Your task to perform on an android device: Open the phone app and click the voicemail tab. Image 0: 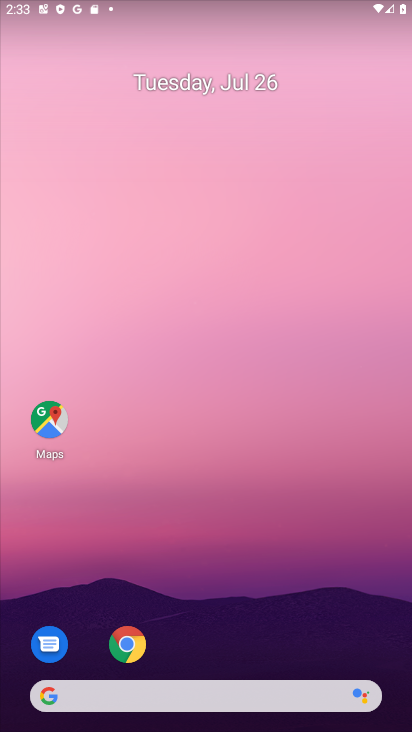
Step 0: drag from (200, 659) to (177, 99)
Your task to perform on an android device: Open the phone app and click the voicemail tab. Image 1: 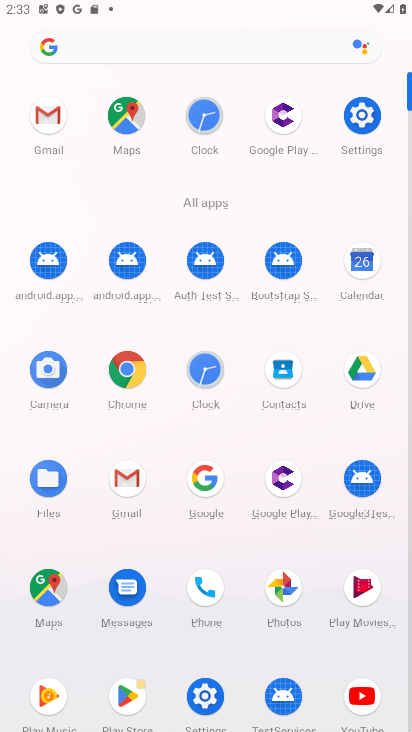
Step 1: click (196, 599)
Your task to perform on an android device: Open the phone app and click the voicemail tab. Image 2: 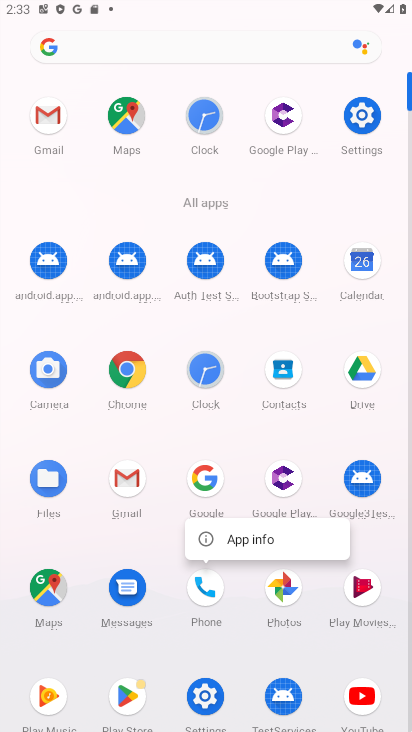
Step 2: click (210, 599)
Your task to perform on an android device: Open the phone app and click the voicemail tab. Image 3: 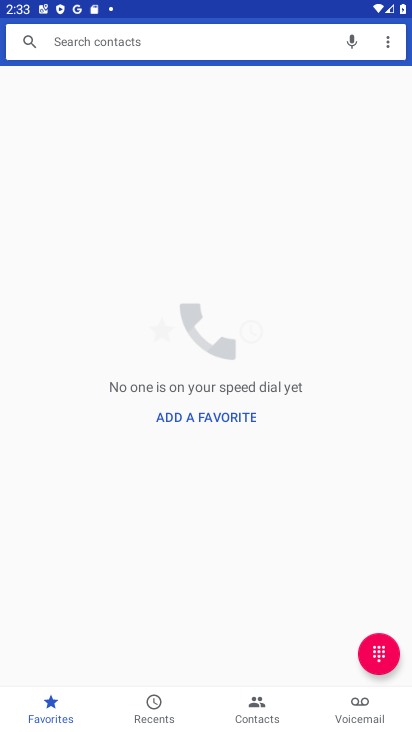
Step 3: click (347, 707)
Your task to perform on an android device: Open the phone app and click the voicemail tab. Image 4: 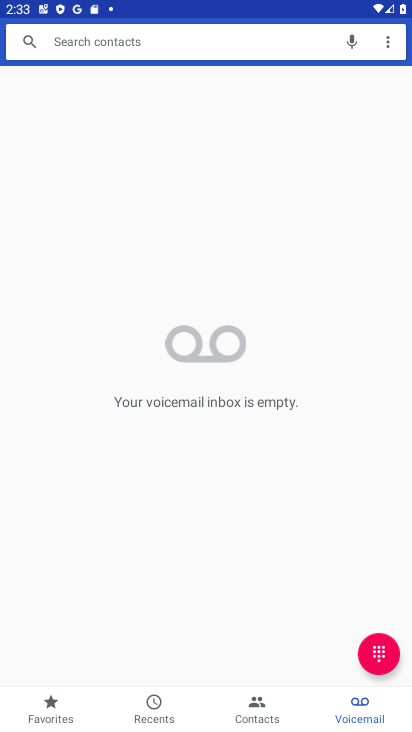
Step 4: task complete